Your task to perform on an android device: turn off priority inbox in the gmail app Image 0: 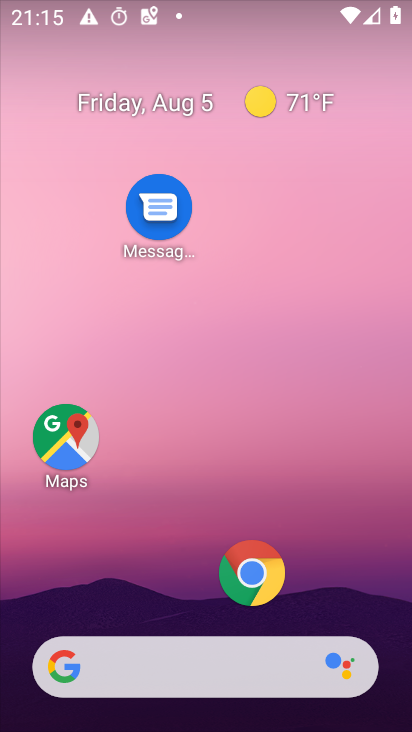
Step 0: drag from (204, 619) to (245, 17)
Your task to perform on an android device: turn off priority inbox in the gmail app Image 1: 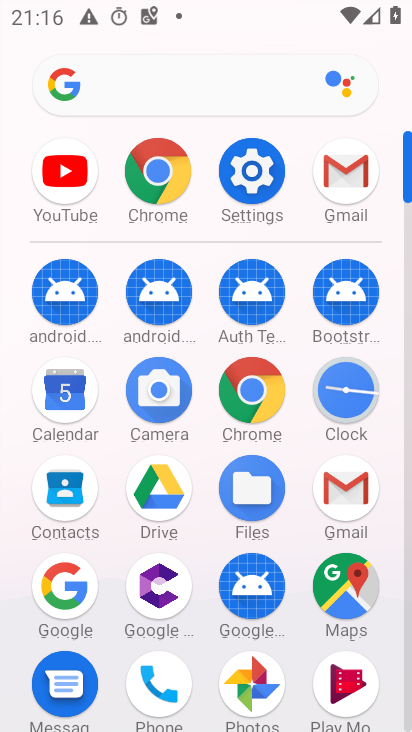
Step 1: click (343, 160)
Your task to perform on an android device: turn off priority inbox in the gmail app Image 2: 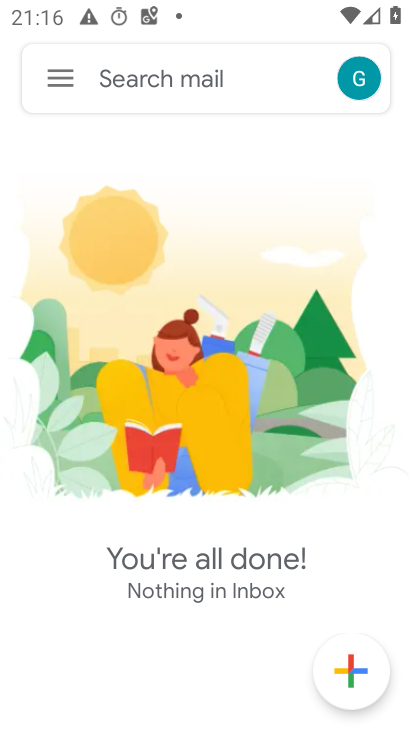
Step 2: click (59, 76)
Your task to perform on an android device: turn off priority inbox in the gmail app Image 3: 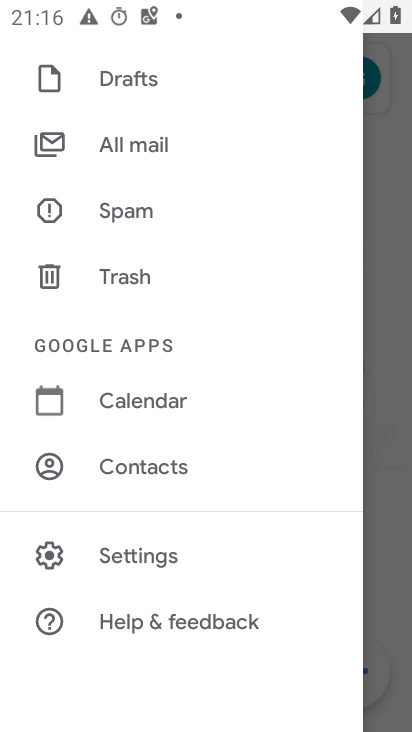
Step 3: click (191, 554)
Your task to perform on an android device: turn off priority inbox in the gmail app Image 4: 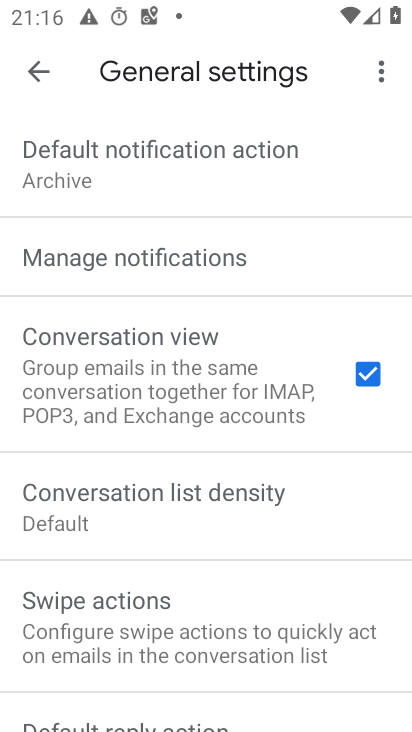
Step 4: click (41, 71)
Your task to perform on an android device: turn off priority inbox in the gmail app Image 5: 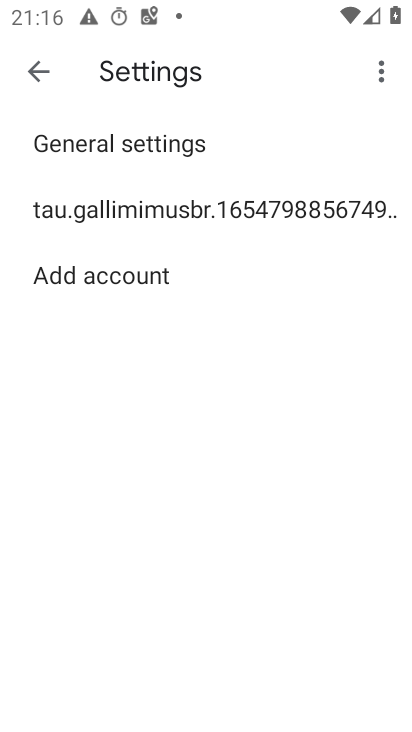
Step 5: click (213, 207)
Your task to perform on an android device: turn off priority inbox in the gmail app Image 6: 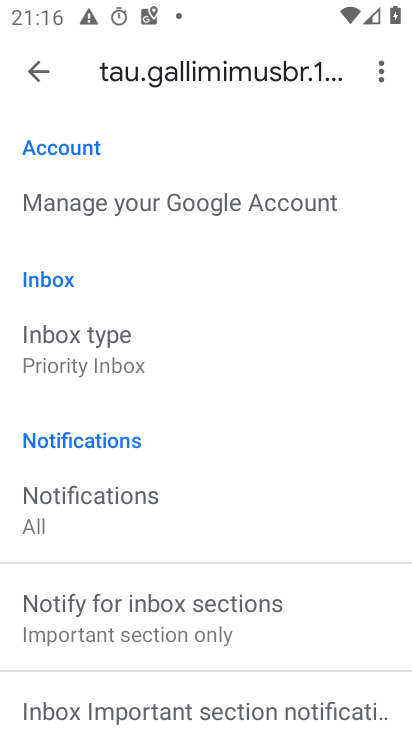
Step 6: click (163, 354)
Your task to perform on an android device: turn off priority inbox in the gmail app Image 7: 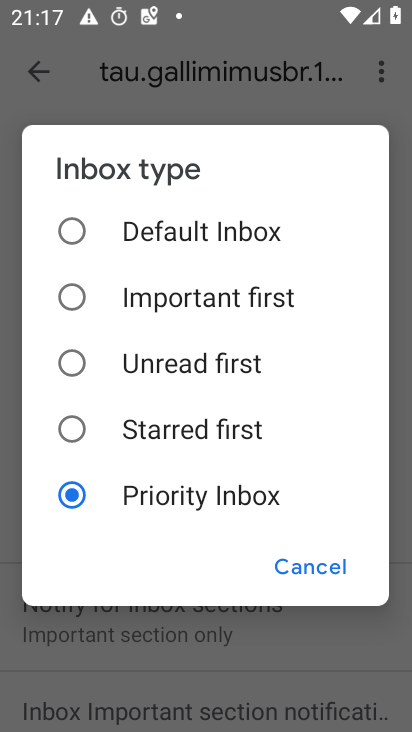
Step 7: click (71, 425)
Your task to perform on an android device: turn off priority inbox in the gmail app Image 8: 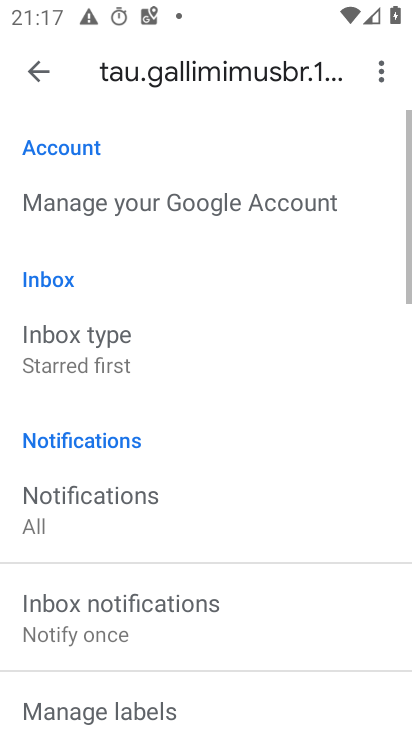
Step 8: task complete